Your task to perform on an android device: Is it going to rain today? Image 0: 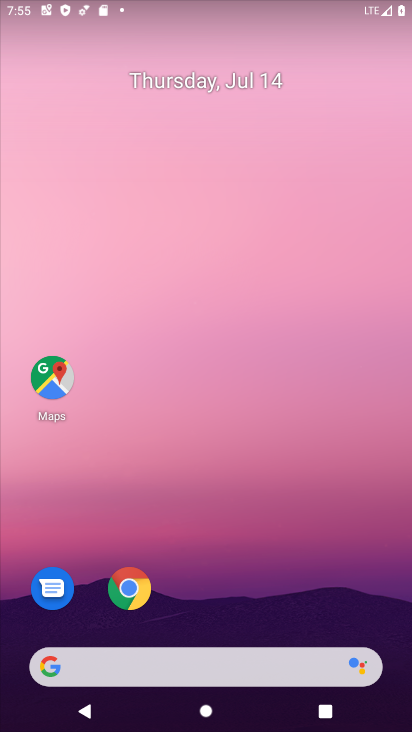
Step 0: drag from (385, 632) to (227, 88)
Your task to perform on an android device: Is it going to rain today? Image 1: 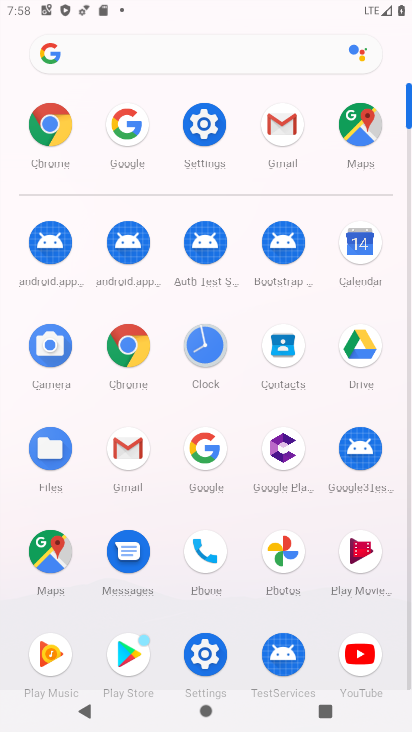
Step 1: click (195, 447)
Your task to perform on an android device: Is it going to rain today? Image 2: 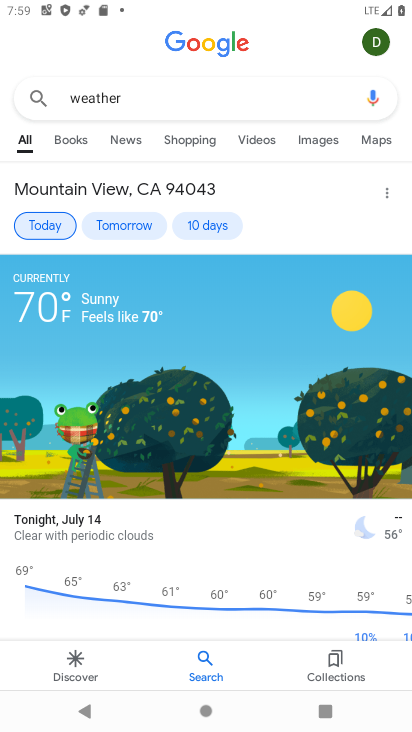
Step 2: press back button
Your task to perform on an android device: Is it going to rain today? Image 3: 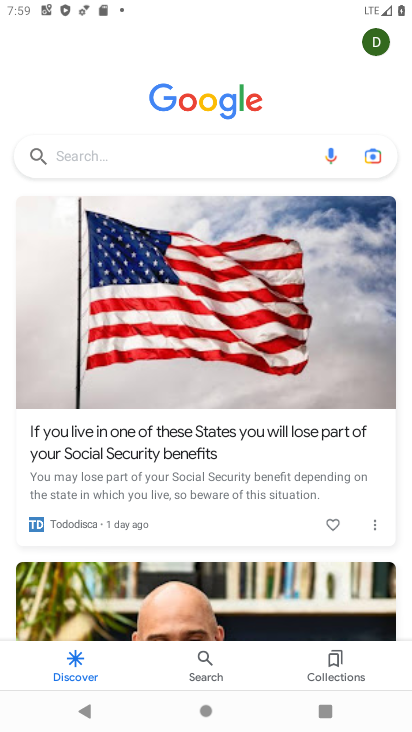
Step 3: click (87, 142)
Your task to perform on an android device: Is it going to rain today? Image 4: 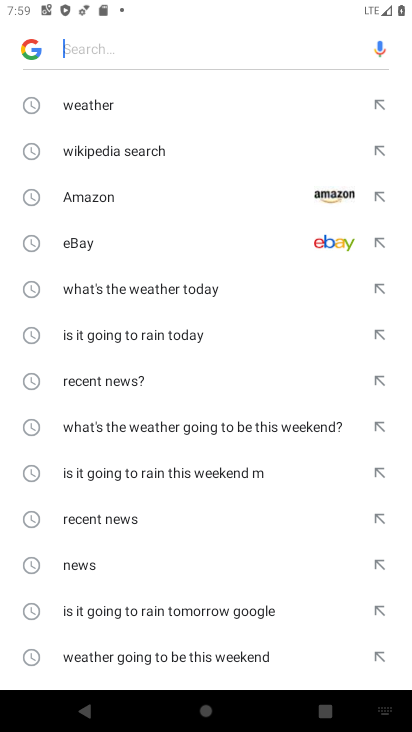
Step 4: click (151, 339)
Your task to perform on an android device: Is it going to rain today? Image 5: 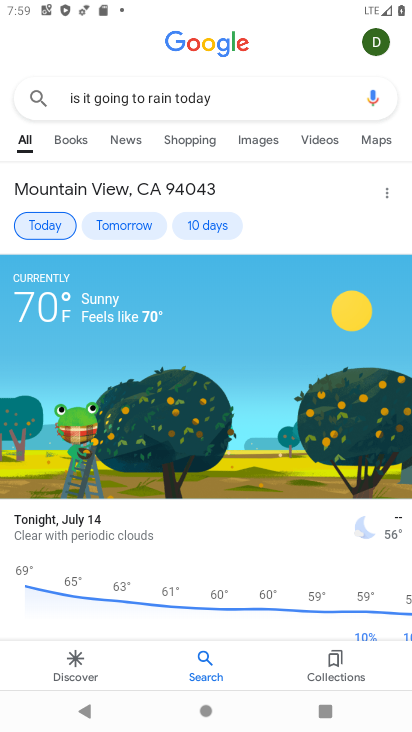
Step 5: task complete